Your task to perform on an android device: Open calendar and show me the second week of next month Image 0: 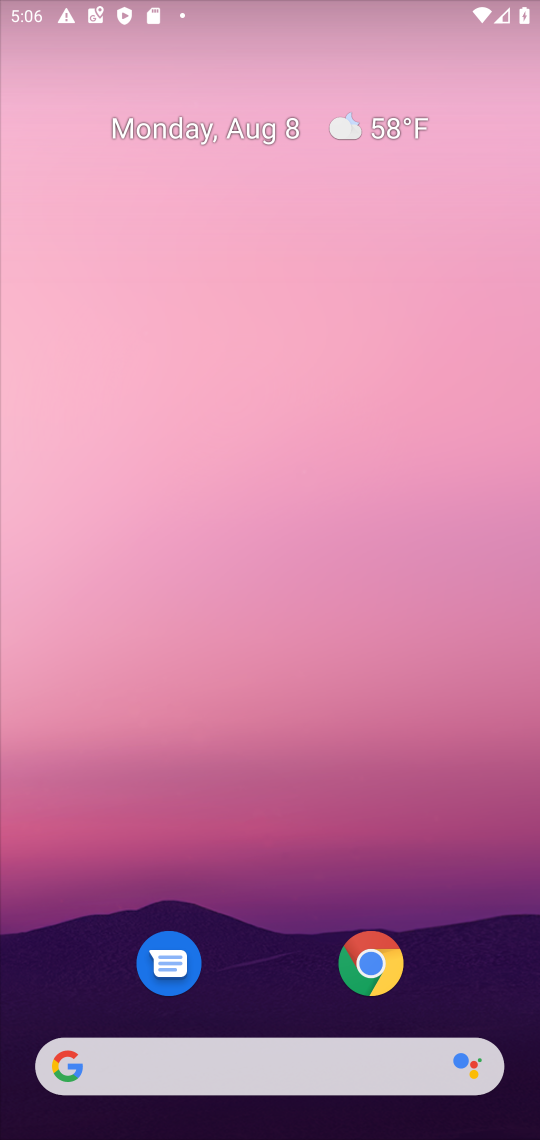
Step 0: press home button
Your task to perform on an android device: Open calendar and show me the second week of next month Image 1: 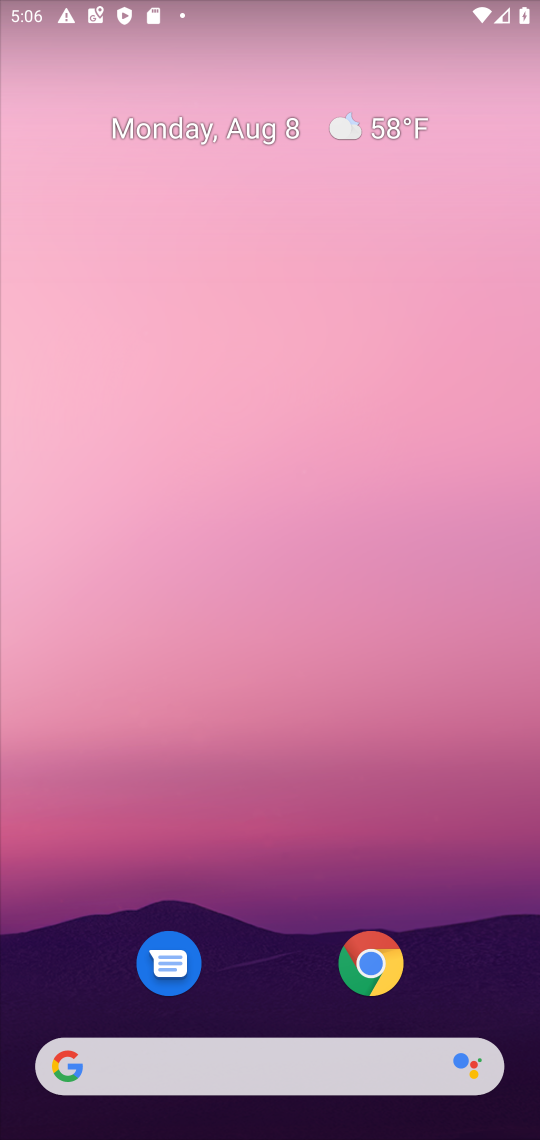
Step 1: drag from (278, 896) to (293, 344)
Your task to perform on an android device: Open calendar and show me the second week of next month Image 2: 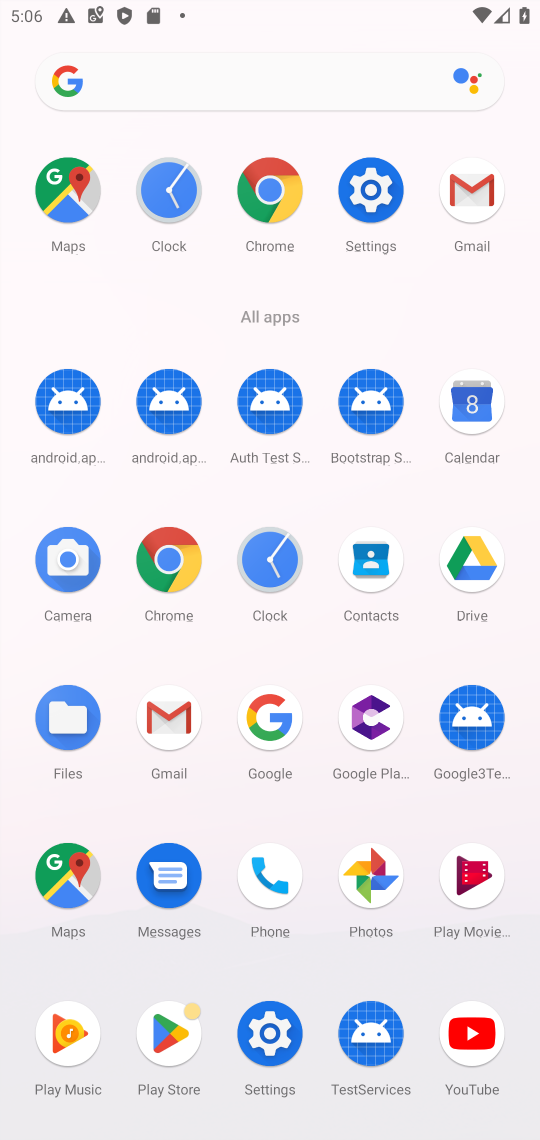
Step 2: click (480, 399)
Your task to perform on an android device: Open calendar and show me the second week of next month Image 3: 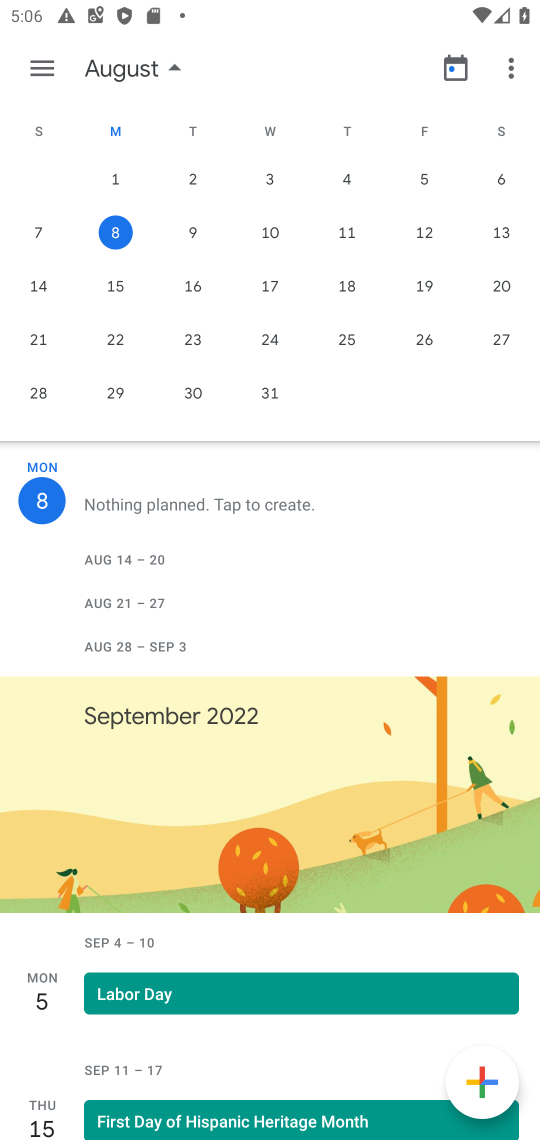
Step 3: drag from (253, 382) to (11, 308)
Your task to perform on an android device: Open calendar and show me the second week of next month Image 4: 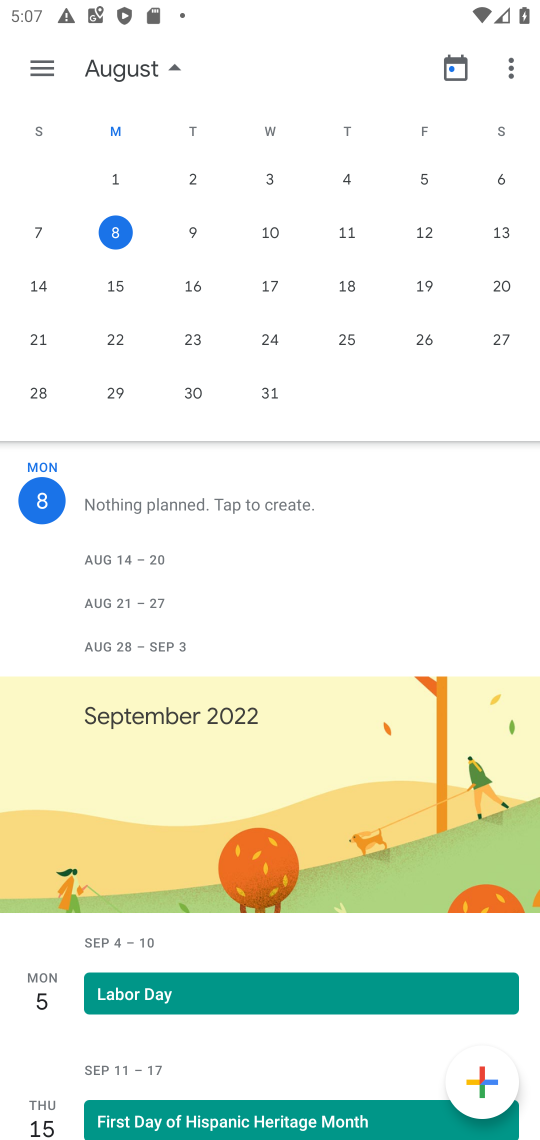
Step 4: drag from (531, 310) to (11, 298)
Your task to perform on an android device: Open calendar and show me the second week of next month Image 5: 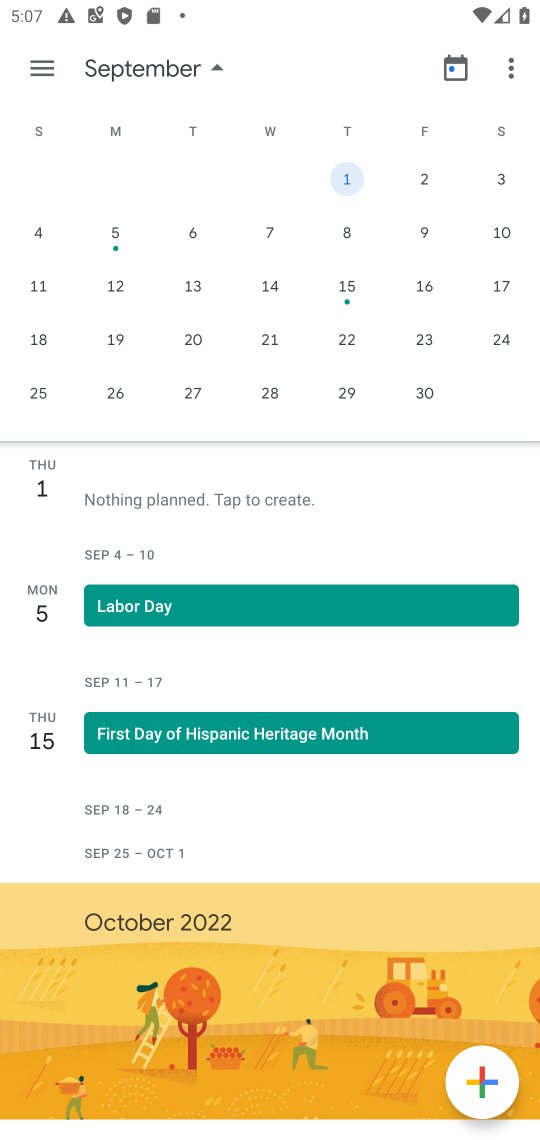
Step 5: click (49, 240)
Your task to perform on an android device: Open calendar and show me the second week of next month Image 6: 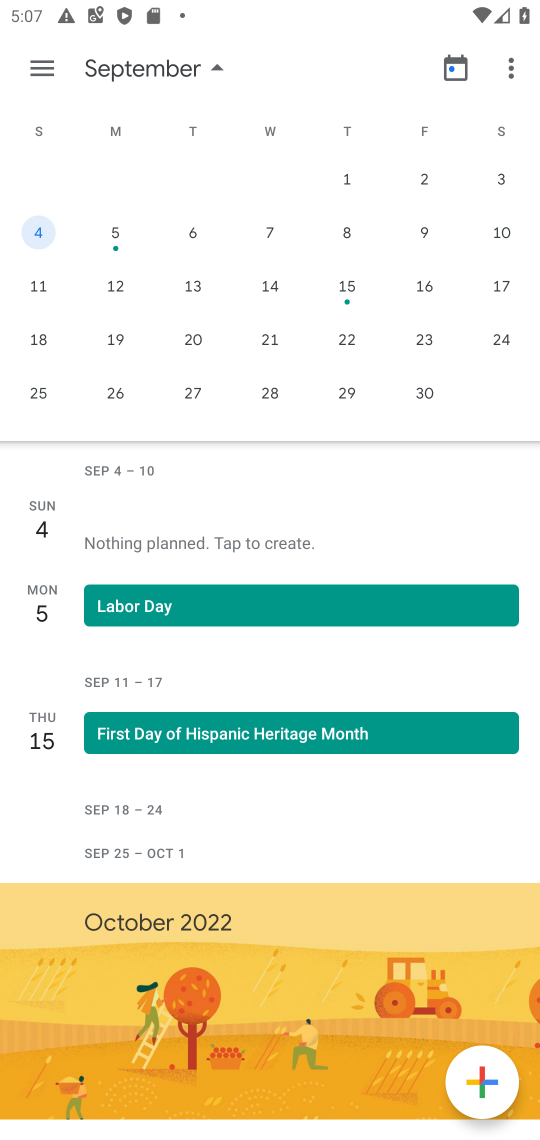
Step 6: task complete